Your task to perform on an android device: Open Google Image 0: 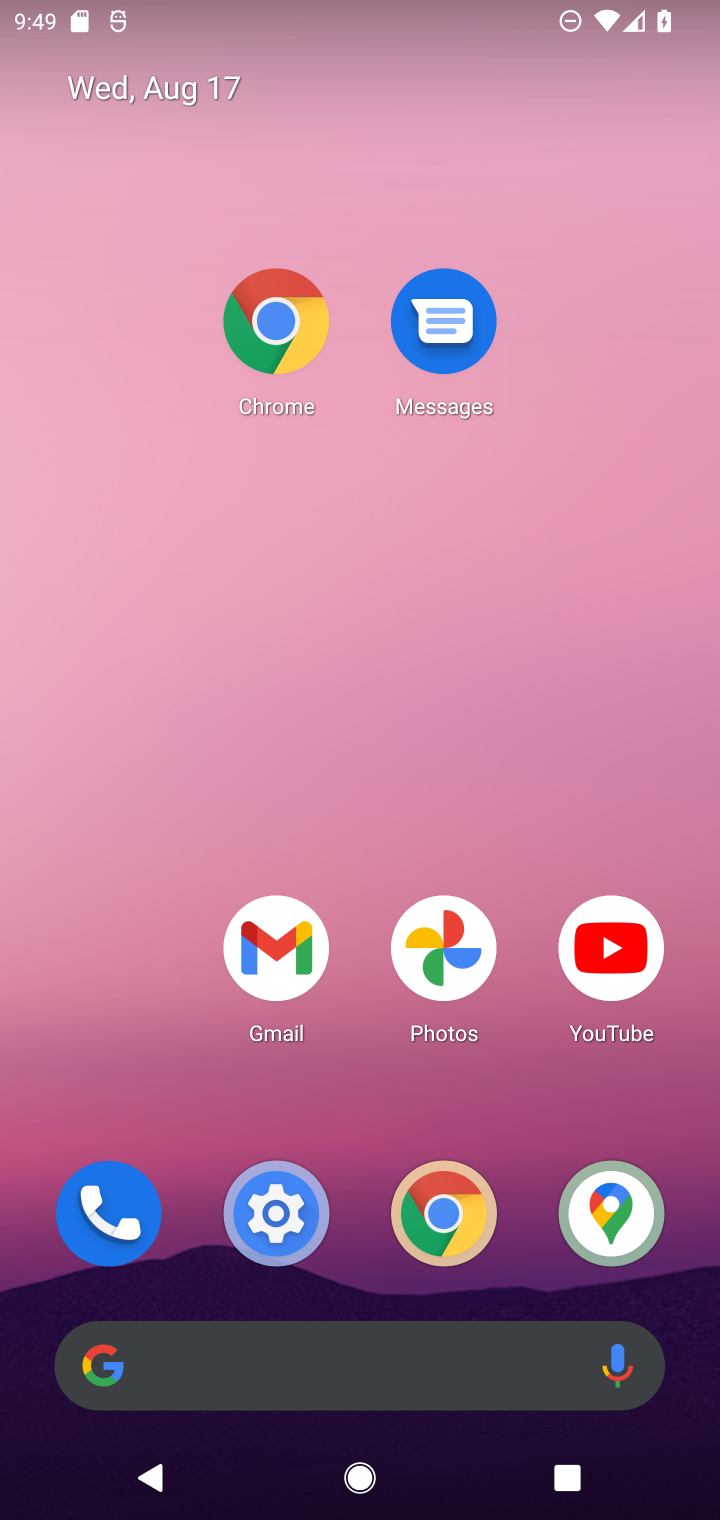
Step 0: click (426, 1339)
Your task to perform on an android device: Open Google Image 1: 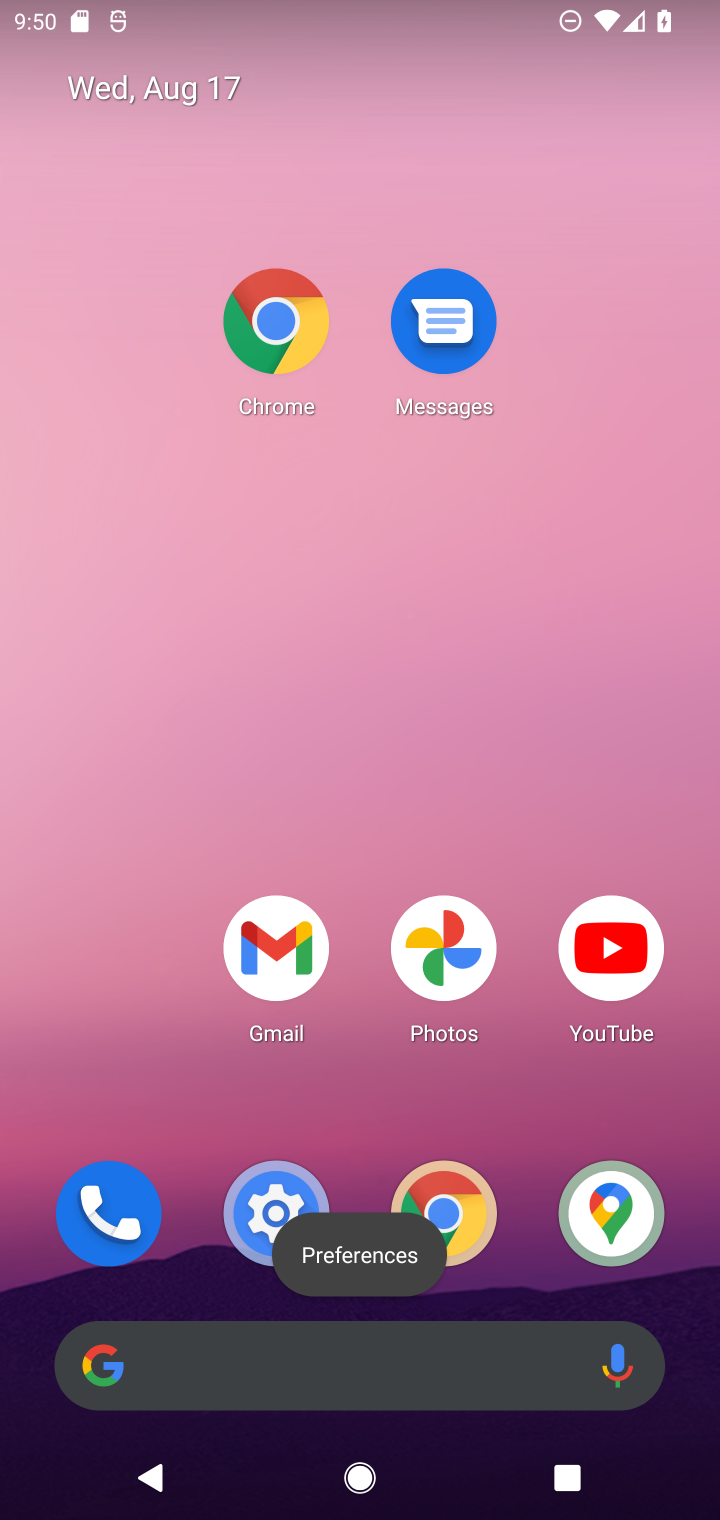
Step 1: click (418, 1352)
Your task to perform on an android device: Open Google Image 2: 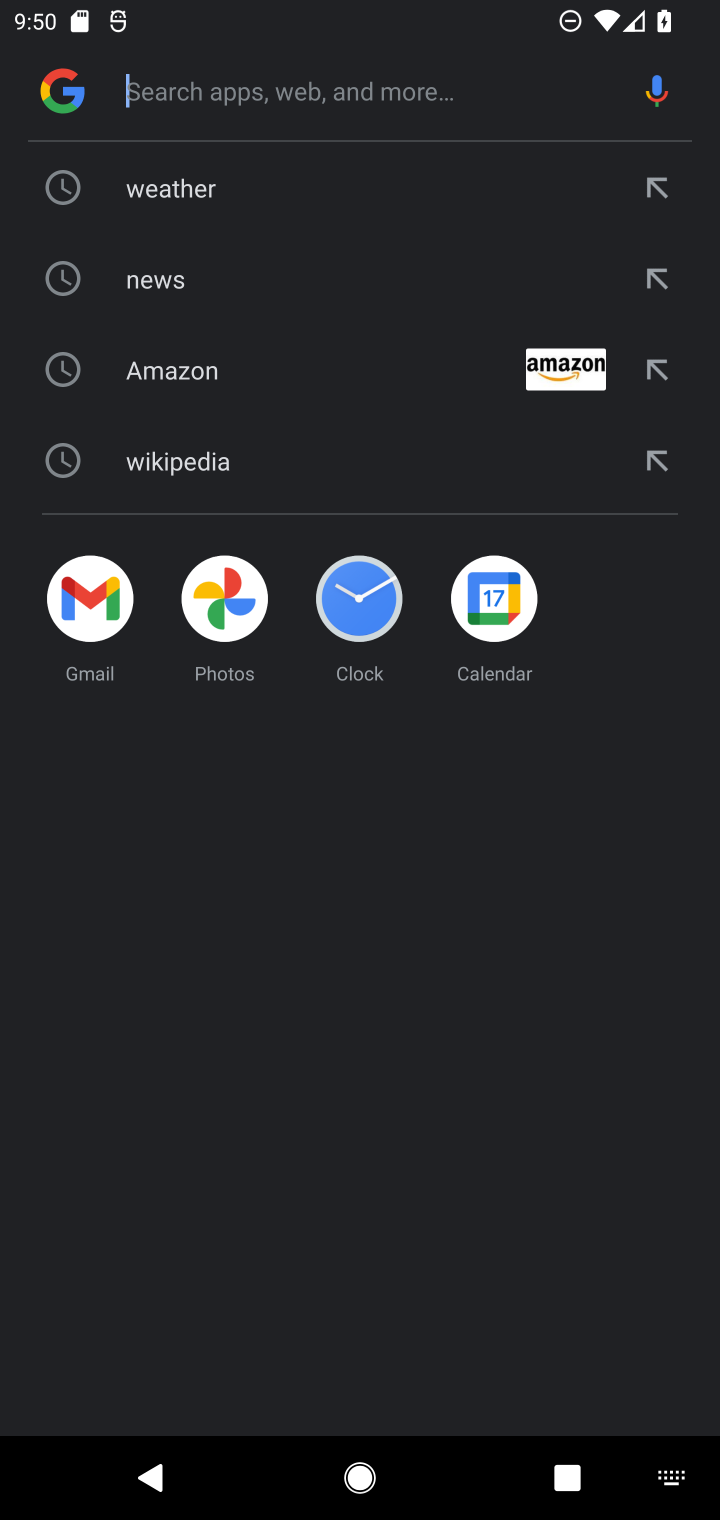
Step 2: type "google.comm"
Your task to perform on an android device: Open Google Image 3: 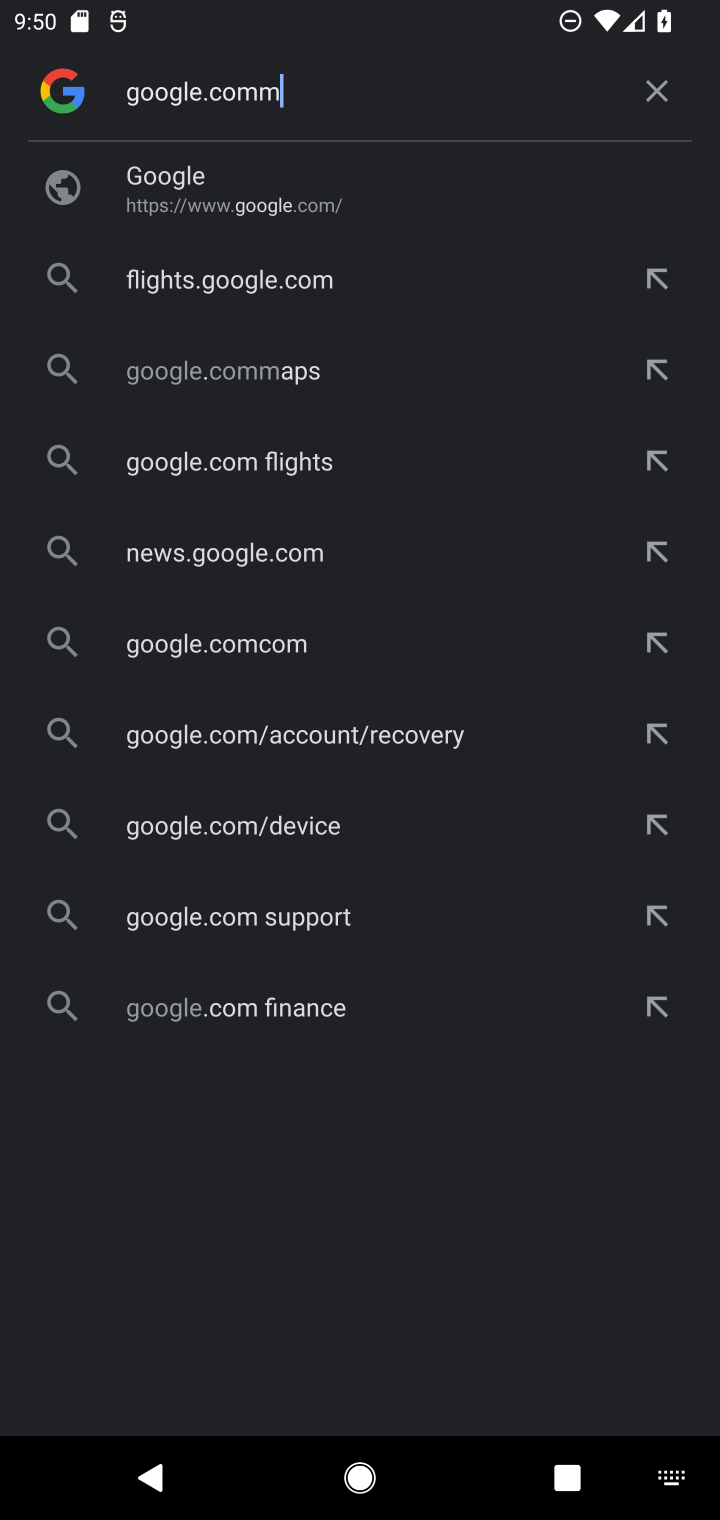
Step 3: click (288, 182)
Your task to perform on an android device: Open Google Image 4: 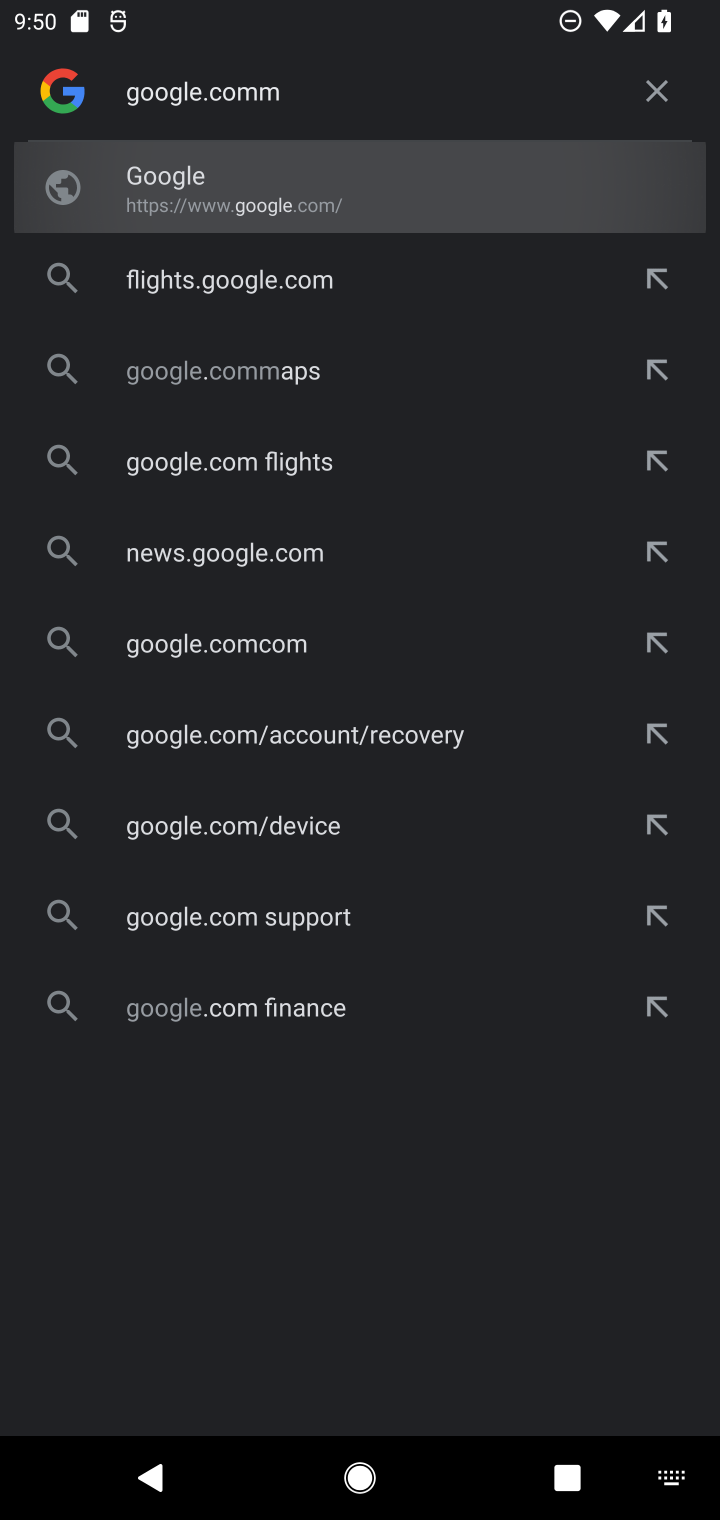
Step 4: task complete